Your task to perform on an android device: allow notifications from all sites in the chrome app Image 0: 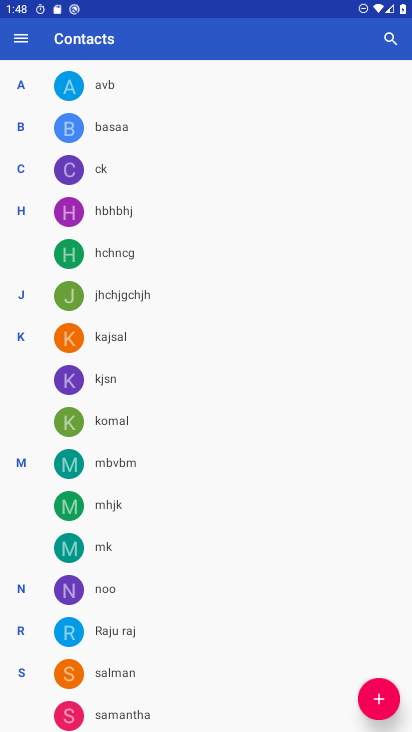
Step 0: press home button
Your task to perform on an android device: allow notifications from all sites in the chrome app Image 1: 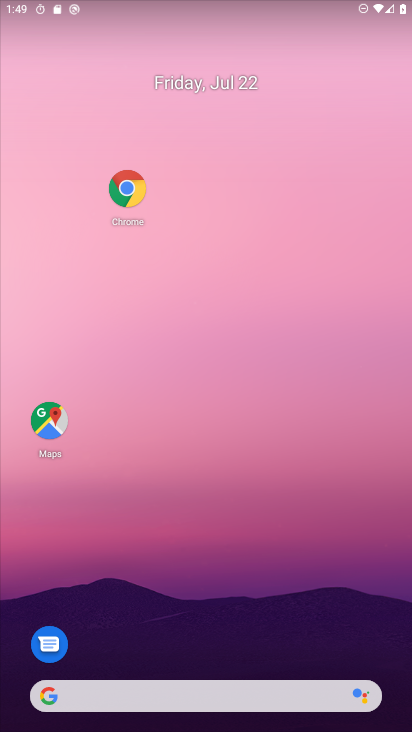
Step 1: click (125, 182)
Your task to perform on an android device: allow notifications from all sites in the chrome app Image 2: 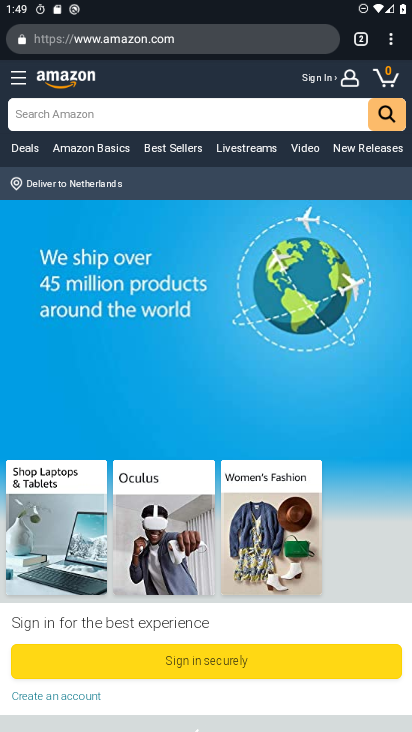
Step 2: click (395, 49)
Your task to perform on an android device: allow notifications from all sites in the chrome app Image 3: 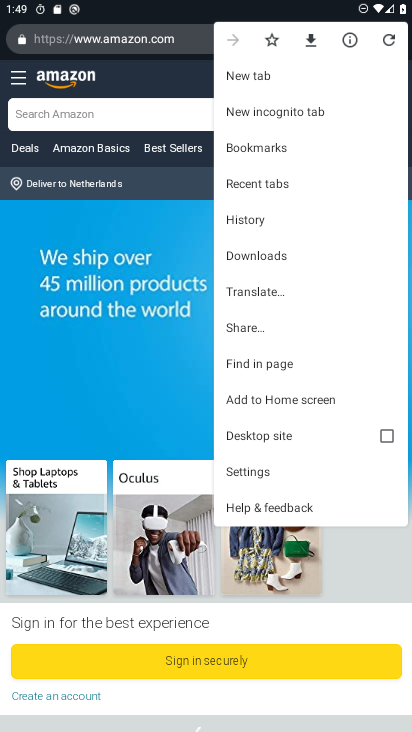
Step 3: click (221, 475)
Your task to perform on an android device: allow notifications from all sites in the chrome app Image 4: 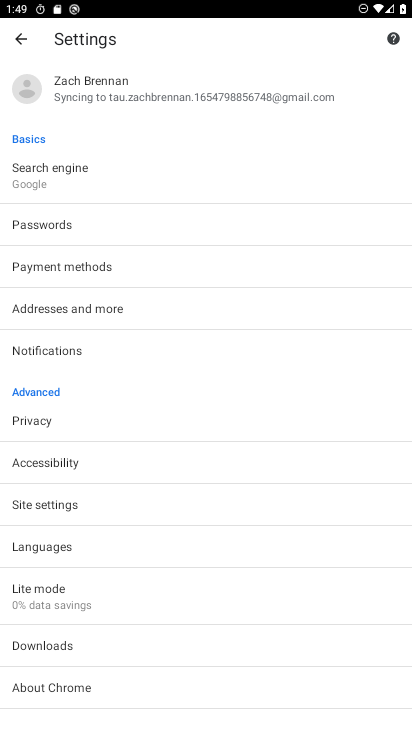
Step 4: click (101, 347)
Your task to perform on an android device: allow notifications from all sites in the chrome app Image 5: 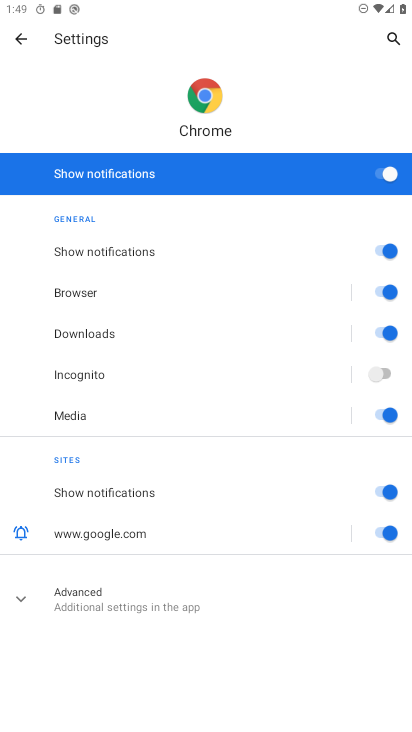
Step 5: task complete